Your task to perform on an android device: What is the recent news? Image 0: 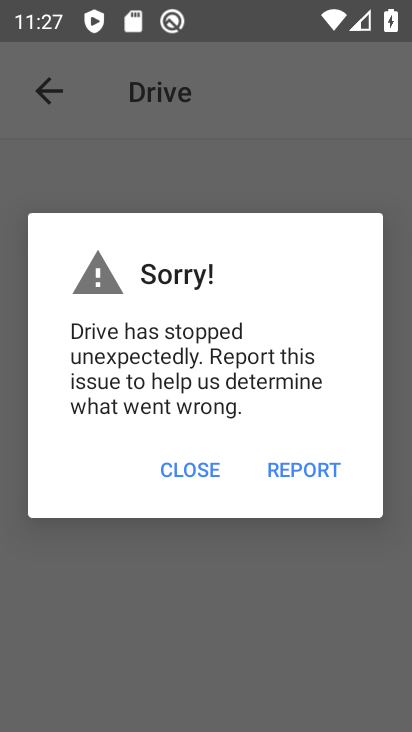
Step 0: press home button
Your task to perform on an android device: What is the recent news? Image 1: 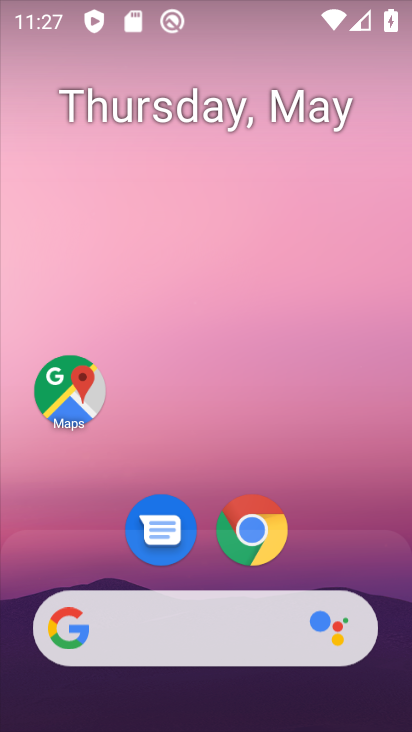
Step 1: click (202, 260)
Your task to perform on an android device: What is the recent news? Image 2: 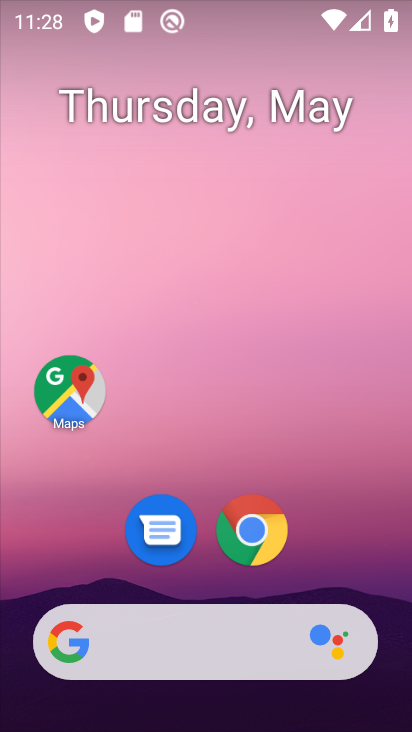
Step 2: drag from (193, 596) to (162, 88)
Your task to perform on an android device: What is the recent news? Image 3: 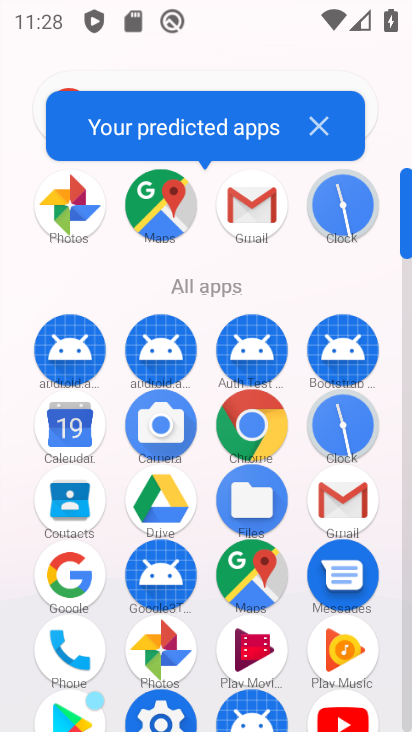
Step 3: click (60, 572)
Your task to perform on an android device: What is the recent news? Image 4: 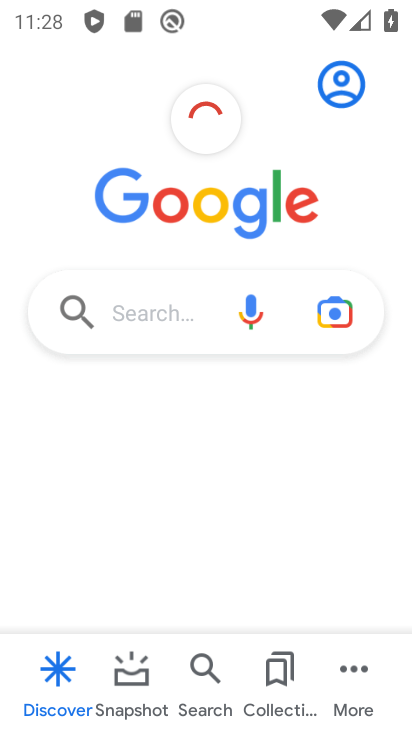
Step 4: click (166, 309)
Your task to perform on an android device: What is the recent news? Image 5: 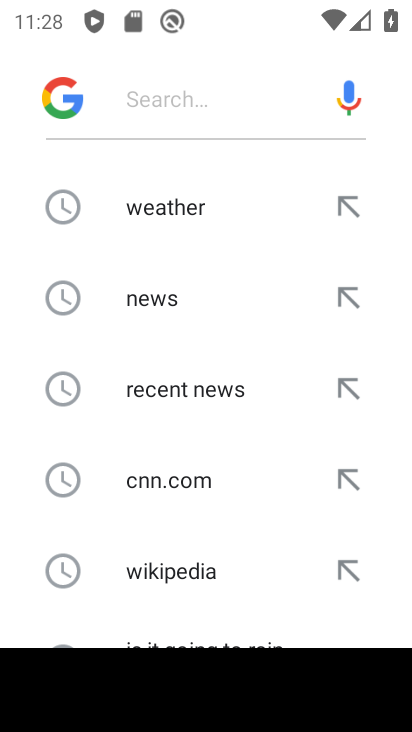
Step 5: click (148, 362)
Your task to perform on an android device: What is the recent news? Image 6: 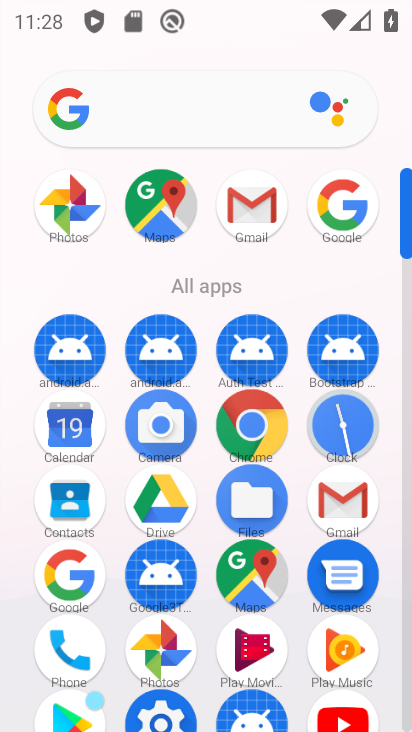
Step 6: click (63, 570)
Your task to perform on an android device: What is the recent news? Image 7: 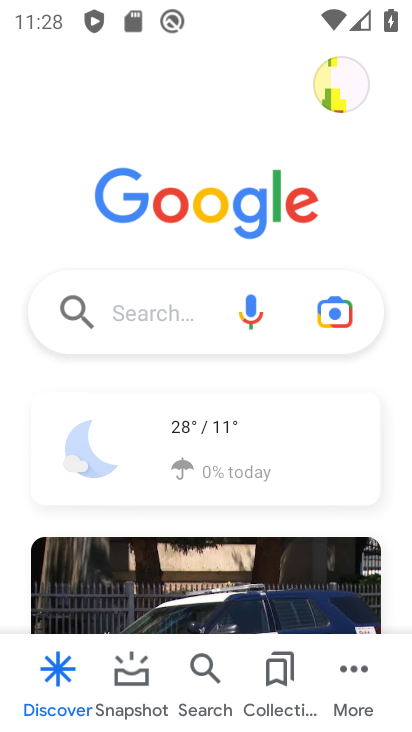
Step 7: click (138, 316)
Your task to perform on an android device: What is the recent news? Image 8: 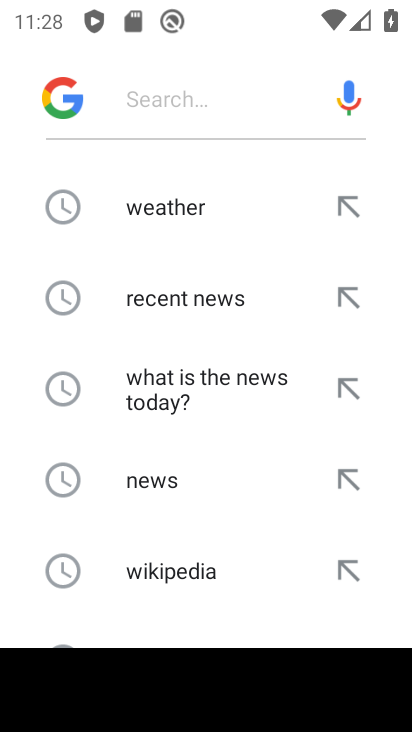
Step 8: click (170, 296)
Your task to perform on an android device: What is the recent news? Image 9: 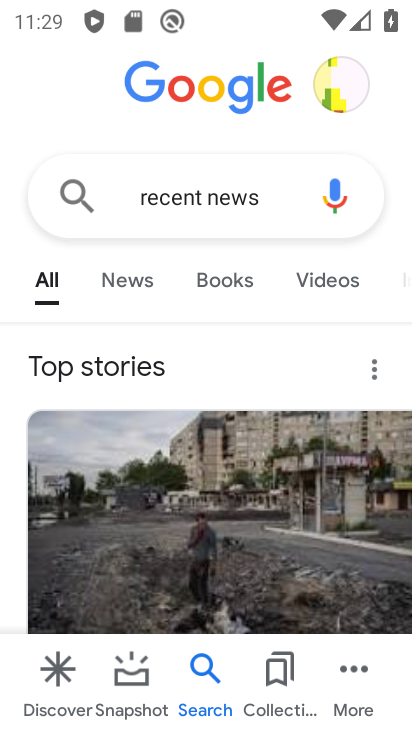
Step 9: task complete